Your task to perform on an android device: Open Chrome and go to the settings page Image 0: 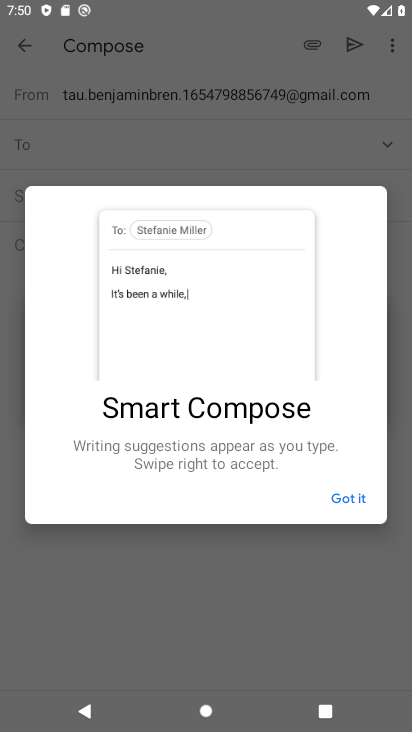
Step 0: press home button
Your task to perform on an android device: Open Chrome and go to the settings page Image 1: 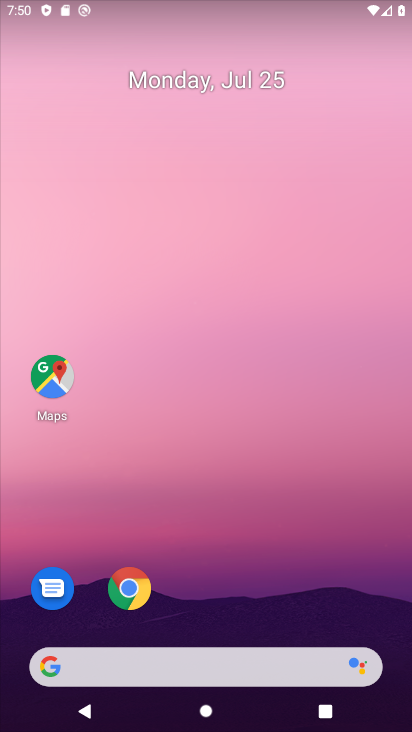
Step 1: click (130, 597)
Your task to perform on an android device: Open Chrome and go to the settings page Image 2: 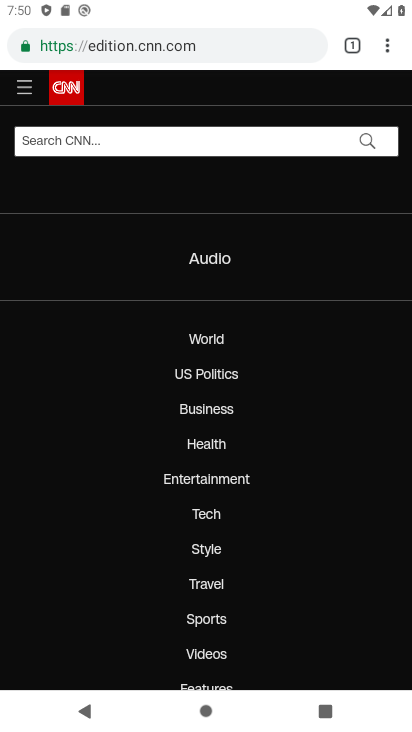
Step 2: click (381, 43)
Your task to perform on an android device: Open Chrome and go to the settings page Image 3: 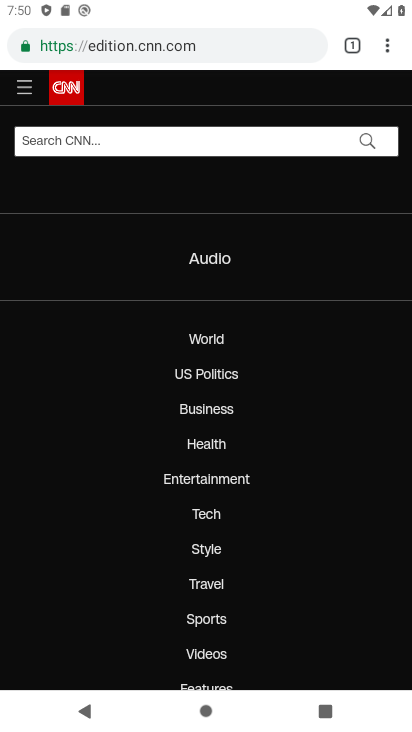
Step 3: click (385, 46)
Your task to perform on an android device: Open Chrome and go to the settings page Image 4: 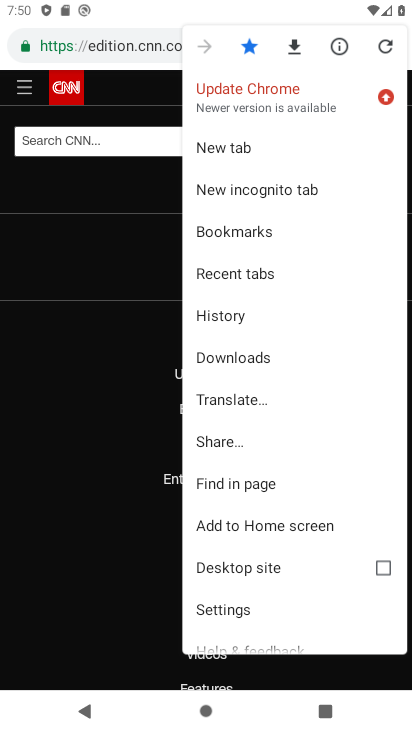
Step 4: click (247, 618)
Your task to perform on an android device: Open Chrome and go to the settings page Image 5: 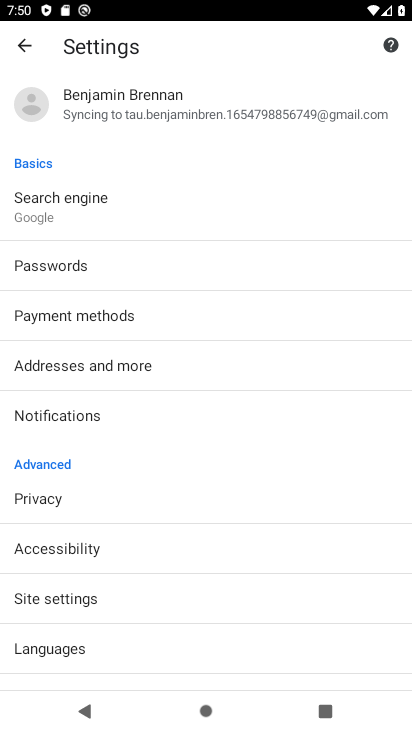
Step 5: task complete